Your task to perform on an android device: Show me popular games on the Play Store Image 0: 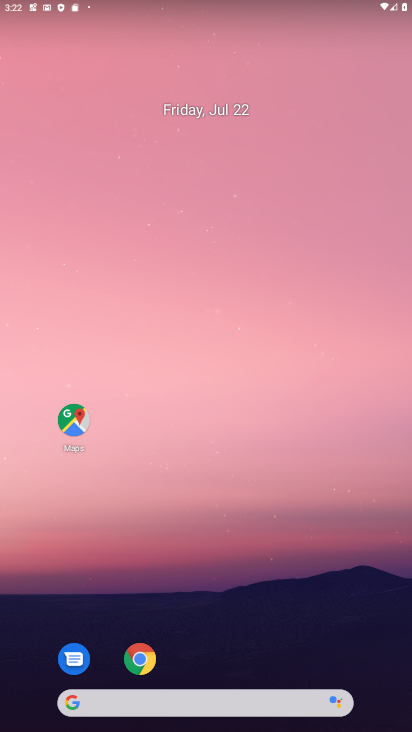
Step 0: drag from (183, 654) to (200, 7)
Your task to perform on an android device: Show me popular games on the Play Store Image 1: 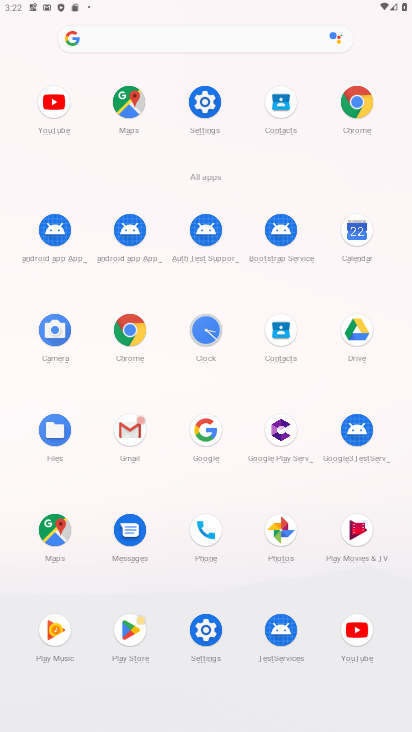
Step 1: click (124, 632)
Your task to perform on an android device: Show me popular games on the Play Store Image 2: 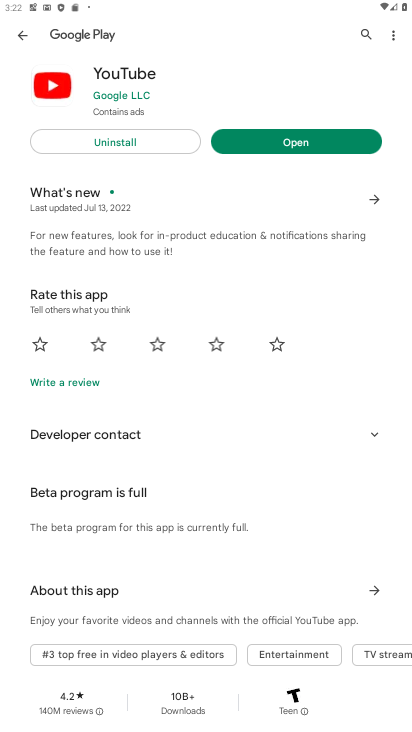
Step 2: click (32, 39)
Your task to perform on an android device: Show me popular games on the Play Store Image 3: 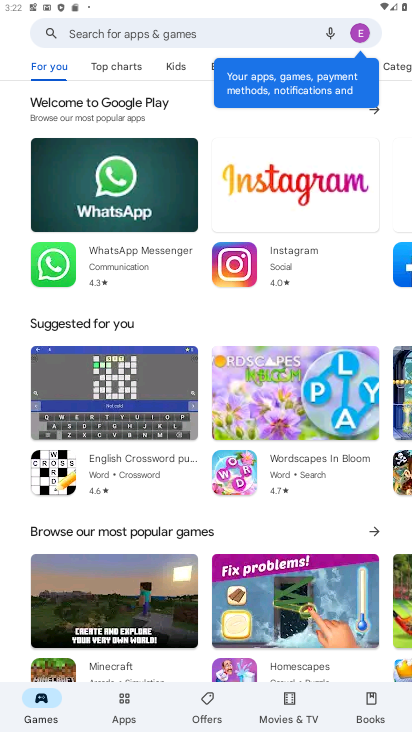
Step 3: click (106, 69)
Your task to perform on an android device: Show me popular games on the Play Store Image 4: 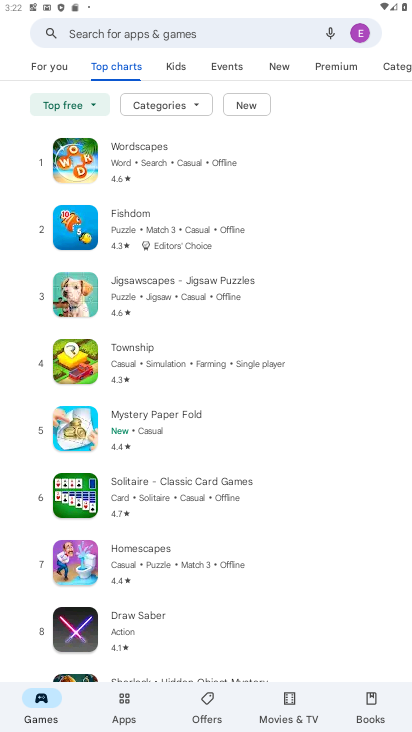
Step 4: task complete